Your task to perform on an android device: allow notifications from all sites in the chrome app Image 0: 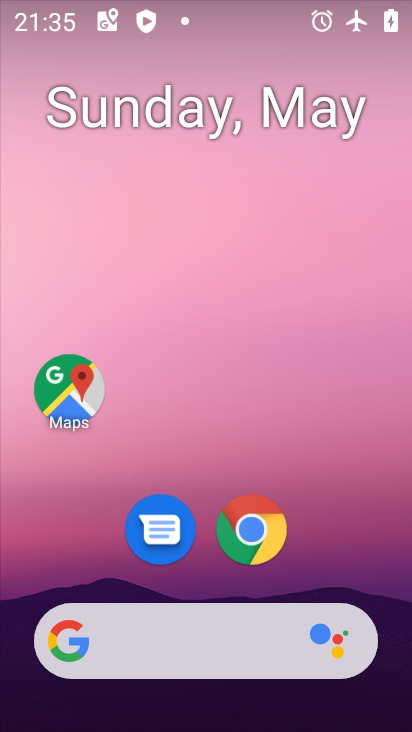
Step 0: click (250, 538)
Your task to perform on an android device: allow notifications from all sites in the chrome app Image 1: 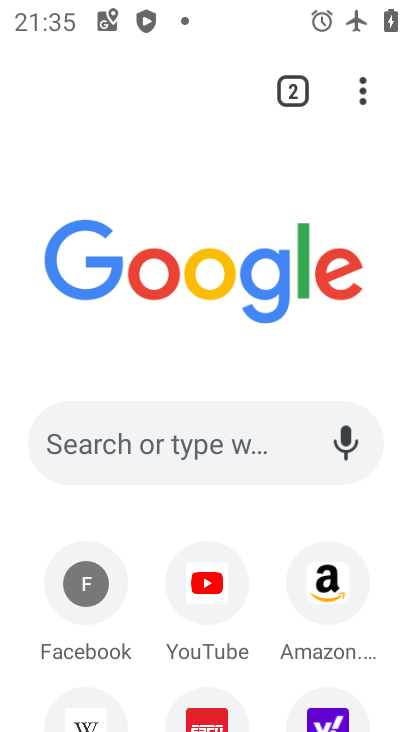
Step 1: click (362, 93)
Your task to perform on an android device: allow notifications from all sites in the chrome app Image 2: 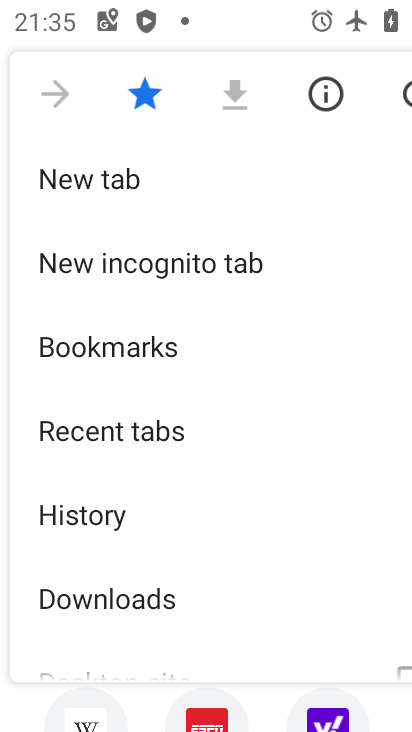
Step 2: drag from (181, 498) to (191, 76)
Your task to perform on an android device: allow notifications from all sites in the chrome app Image 3: 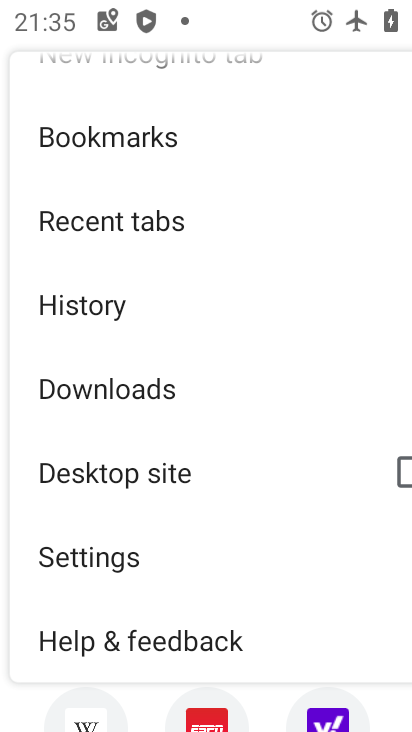
Step 3: click (105, 560)
Your task to perform on an android device: allow notifications from all sites in the chrome app Image 4: 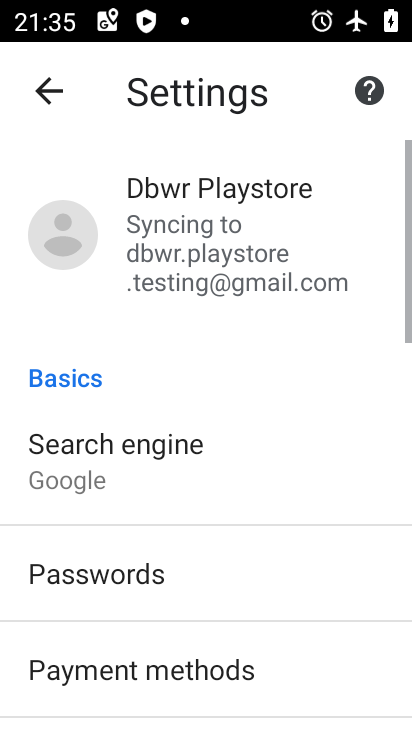
Step 4: drag from (153, 625) to (199, 37)
Your task to perform on an android device: allow notifications from all sites in the chrome app Image 5: 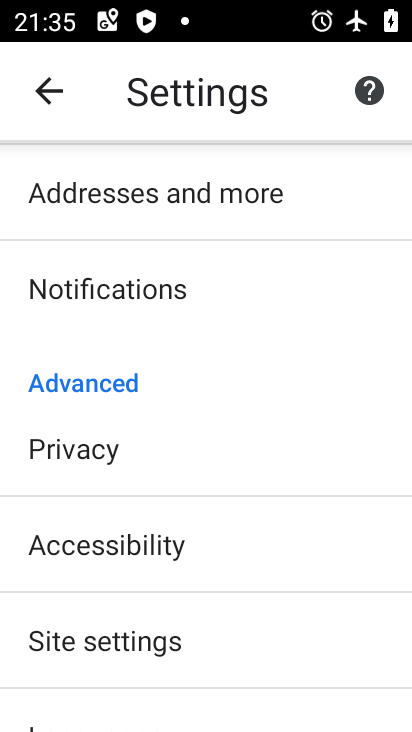
Step 5: drag from (143, 481) to (151, 151)
Your task to perform on an android device: allow notifications from all sites in the chrome app Image 6: 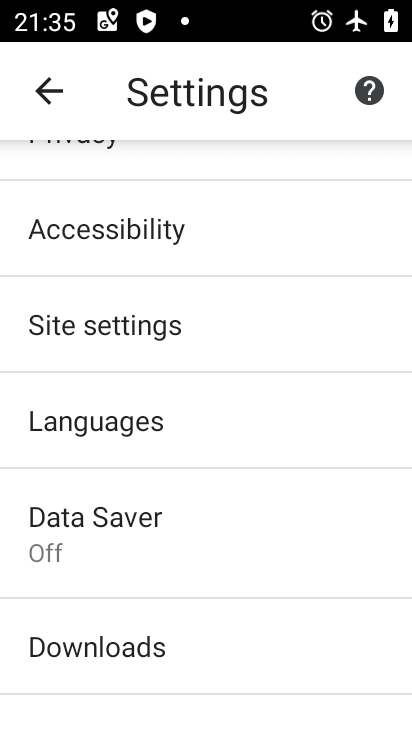
Step 6: click (102, 332)
Your task to perform on an android device: allow notifications from all sites in the chrome app Image 7: 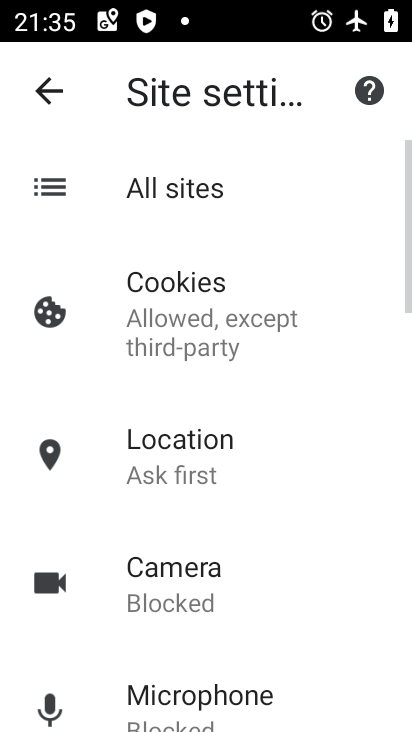
Step 7: drag from (199, 544) to (207, 267)
Your task to perform on an android device: allow notifications from all sites in the chrome app Image 8: 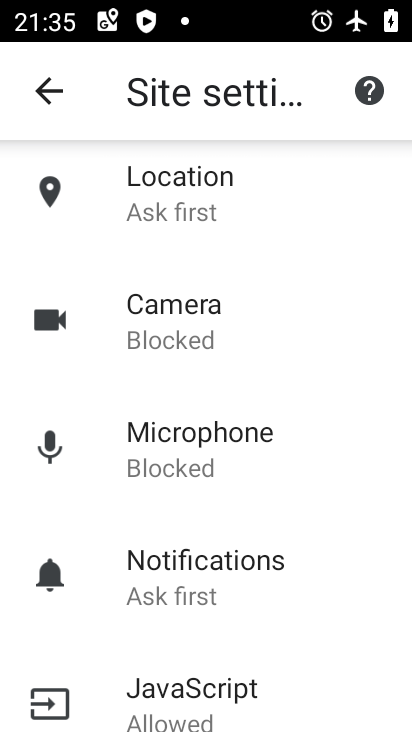
Step 8: click (197, 563)
Your task to perform on an android device: allow notifications from all sites in the chrome app Image 9: 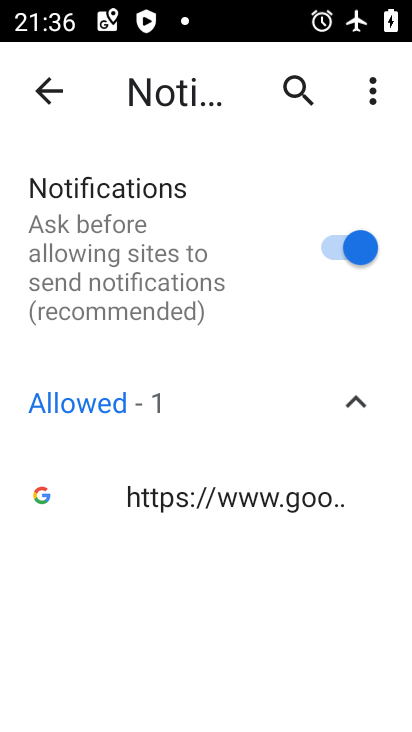
Step 9: task complete